Your task to perform on an android device: Open the Play Movies app and select the watchlist tab. Image 0: 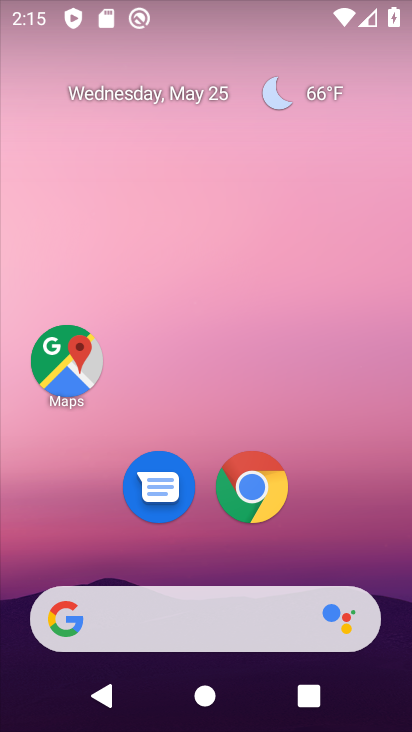
Step 0: drag from (316, 563) to (268, 156)
Your task to perform on an android device: Open the Play Movies app and select the watchlist tab. Image 1: 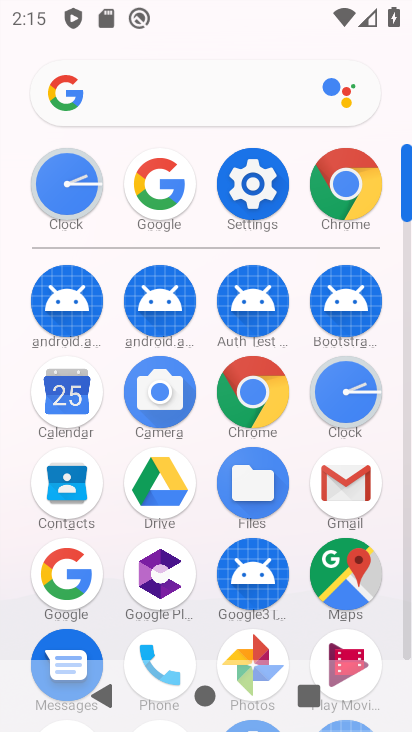
Step 1: click (355, 653)
Your task to perform on an android device: Open the Play Movies app and select the watchlist tab. Image 2: 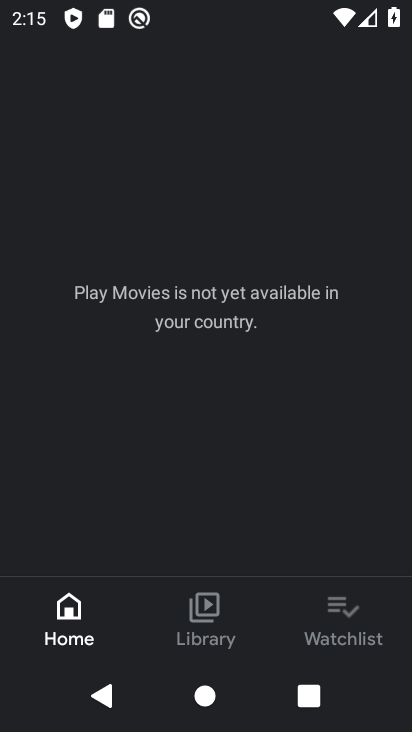
Step 2: click (360, 623)
Your task to perform on an android device: Open the Play Movies app and select the watchlist tab. Image 3: 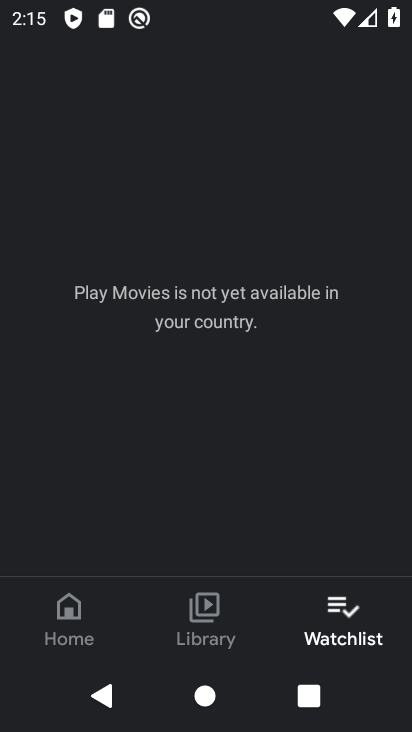
Step 3: task complete